Your task to perform on an android device: Open calendar and show me the third week of next month Image 0: 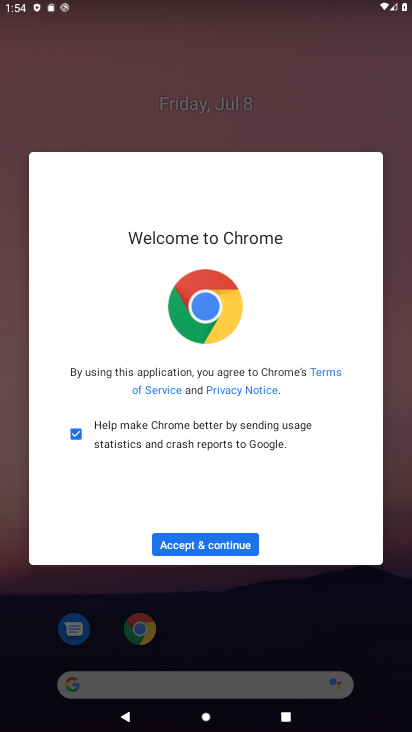
Step 0: press home button
Your task to perform on an android device: Open calendar and show me the third week of next month Image 1: 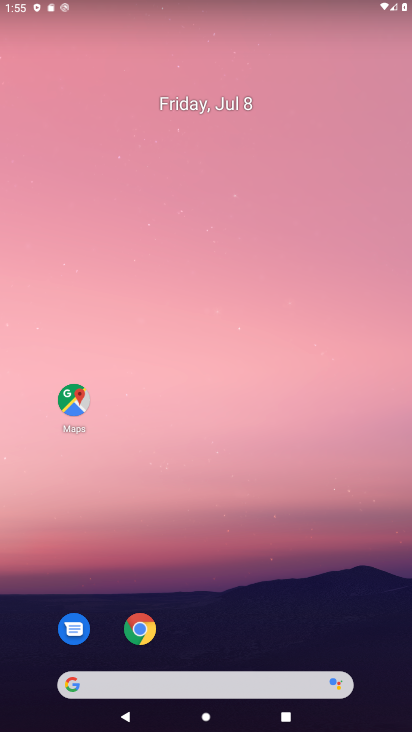
Step 1: drag from (21, 680) to (249, 272)
Your task to perform on an android device: Open calendar and show me the third week of next month Image 2: 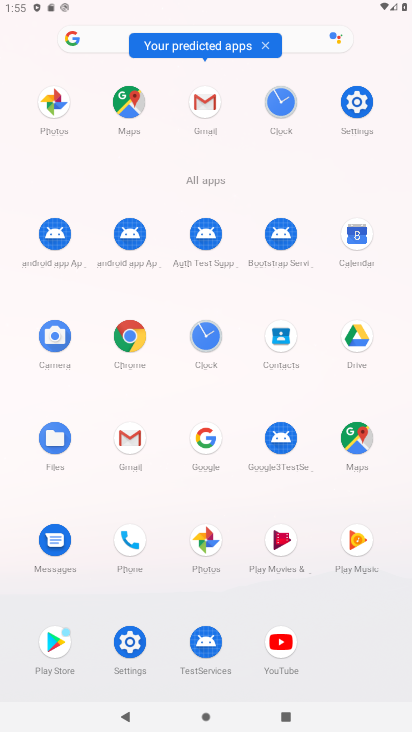
Step 2: click (352, 246)
Your task to perform on an android device: Open calendar and show me the third week of next month Image 3: 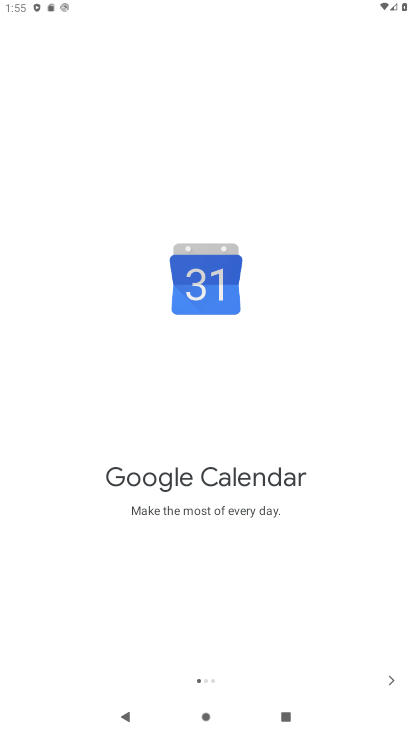
Step 3: click (389, 672)
Your task to perform on an android device: Open calendar and show me the third week of next month Image 4: 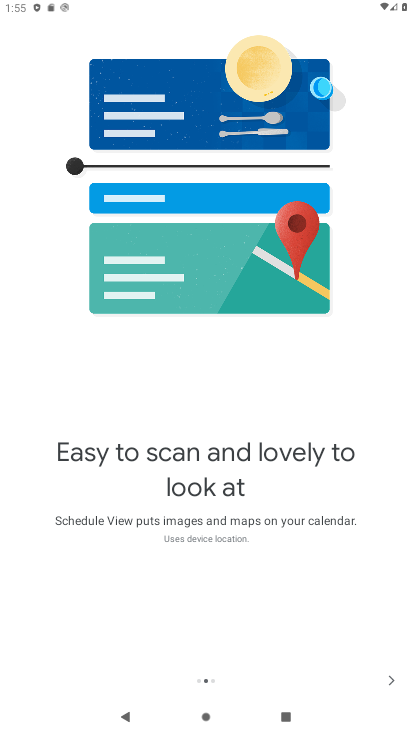
Step 4: click (384, 679)
Your task to perform on an android device: Open calendar and show me the third week of next month Image 5: 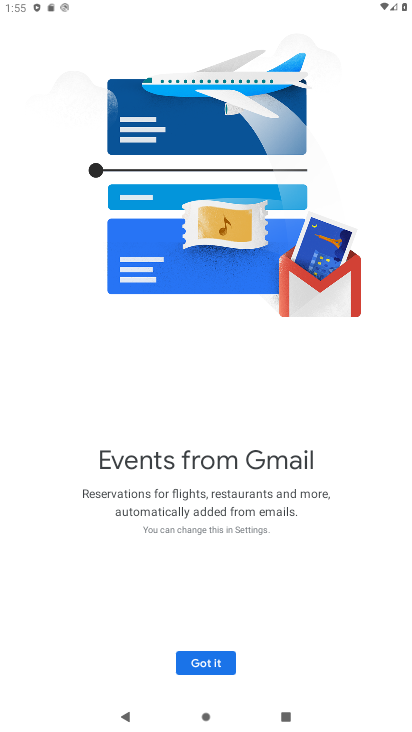
Step 5: click (222, 653)
Your task to perform on an android device: Open calendar and show me the third week of next month Image 6: 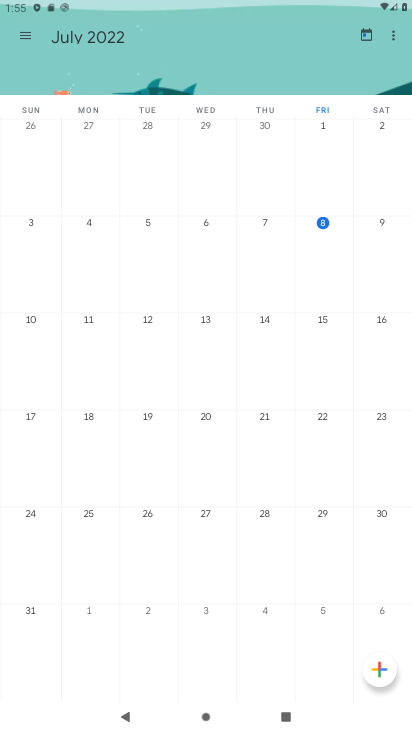
Step 6: drag from (28, 270) to (12, 417)
Your task to perform on an android device: Open calendar and show me the third week of next month Image 7: 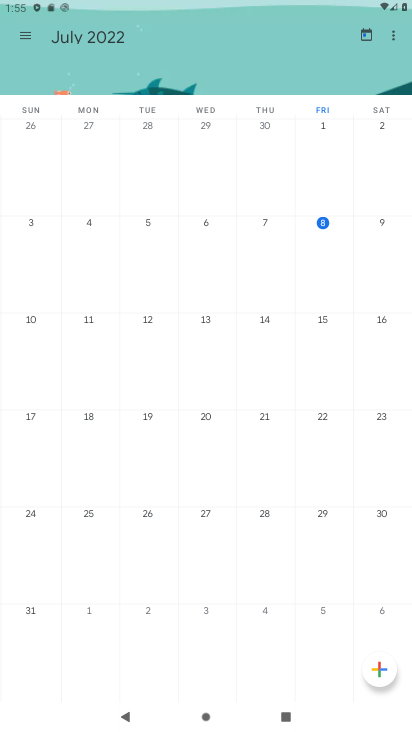
Step 7: drag from (299, 338) to (0, 502)
Your task to perform on an android device: Open calendar and show me the third week of next month Image 8: 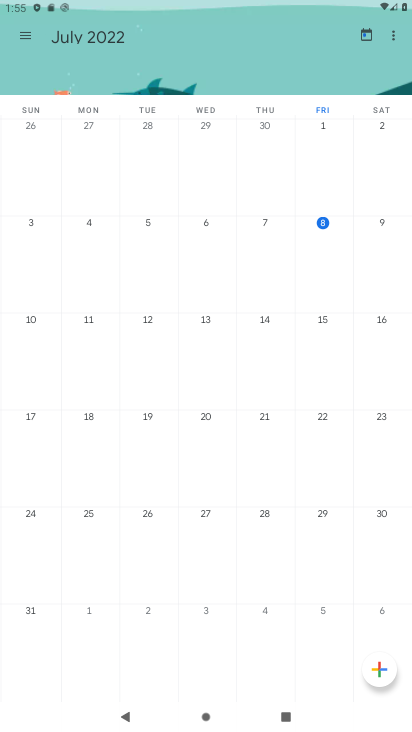
Step 8: click (362, 34)
Your task to perform on an android device: Open calendar and show me the third week of next month Image 9: 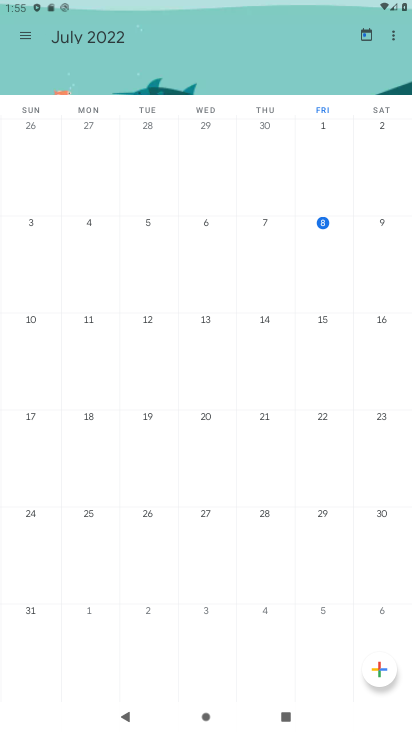
Step 9: drag from (381, 403) to (16, 383)
Your task to perform on an android device: Open calendar and show me the third week of next month Image 10: 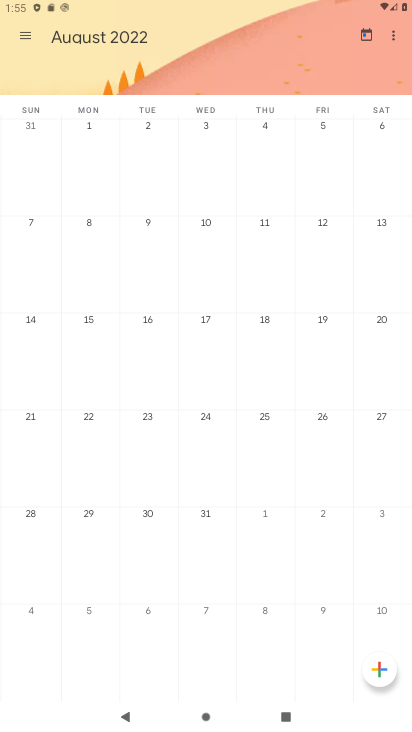
Step 10: click (95, 327)
Your task to perform on an android device: Open calendar and show me the third week of next month Image 11: 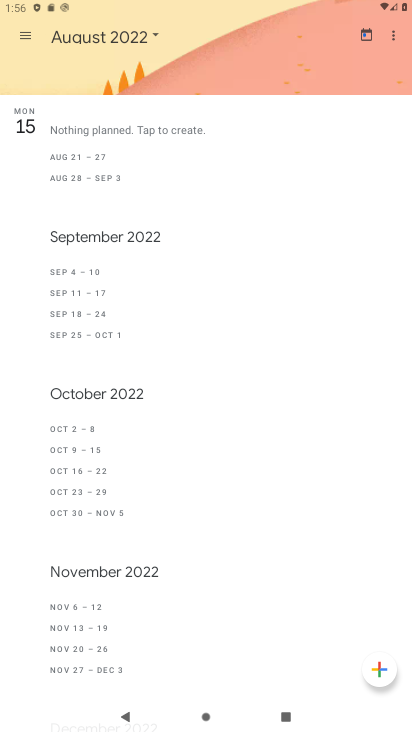
Step 11: task complete